Your task to perform on an android device: What's the weather going to be tomorrow? Image 0: 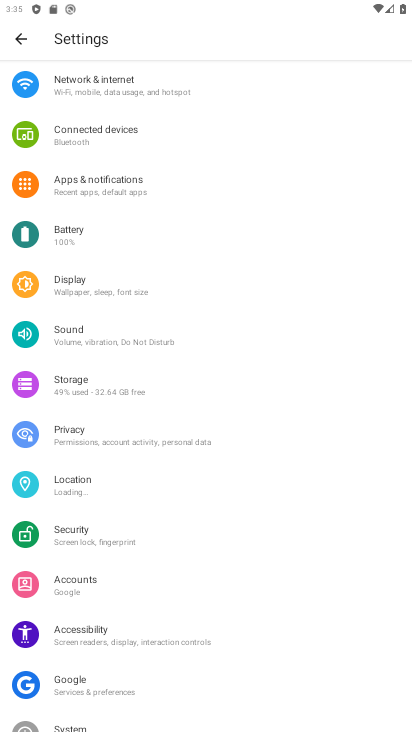
Step 0: press back button
Your task to perform on an android device: What's the weather going to be tomorrow? Image 1: 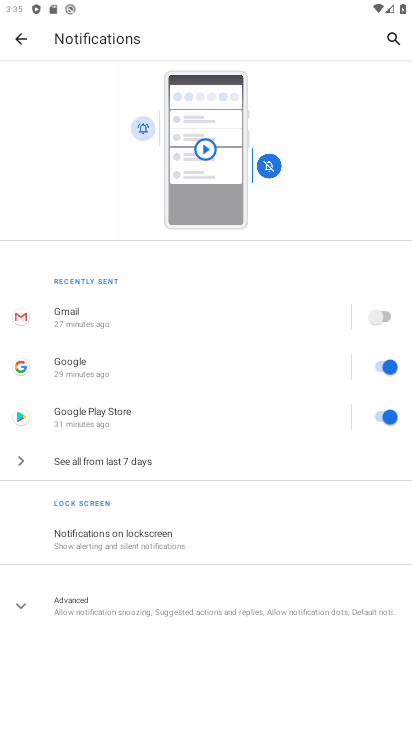
Step 1: press back button
Your task to perform on an android device: What's the weather going to be tomorrow? Image 2: 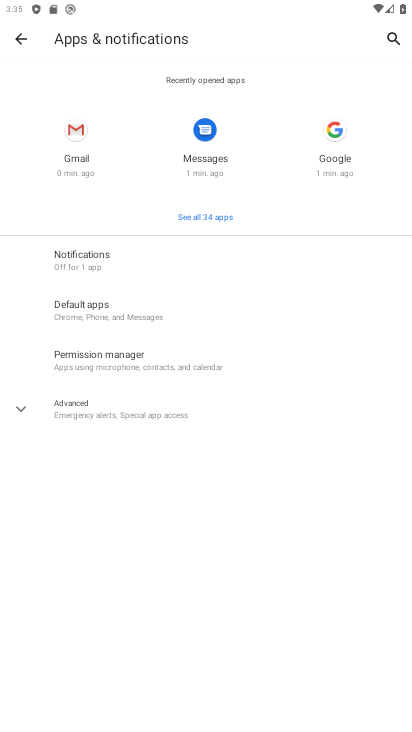
Step 2: press back button
Your task to perform on an android device: What's the weather going to be tomorrow? Image 3: 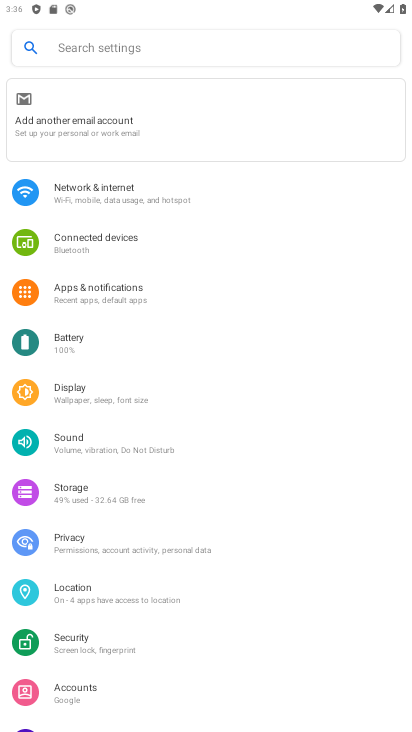
Step 3: press back button
Your task to perform on an android device: What's the weather going to be tomorrow? Image 4: 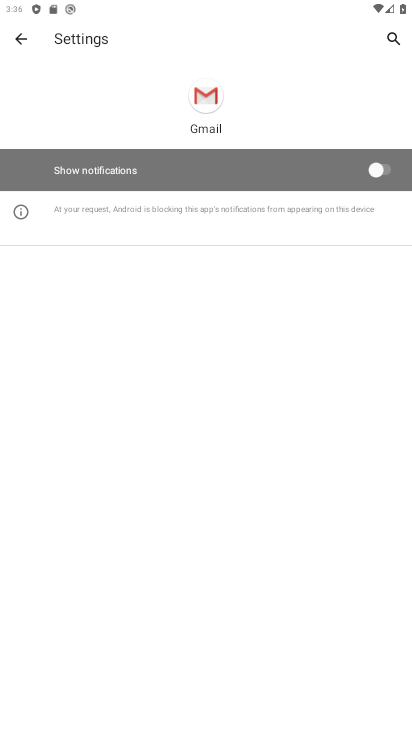
Step 4: press back button
Your task to perform on an android device: What's the weather going to be tomorrow? Image 5: 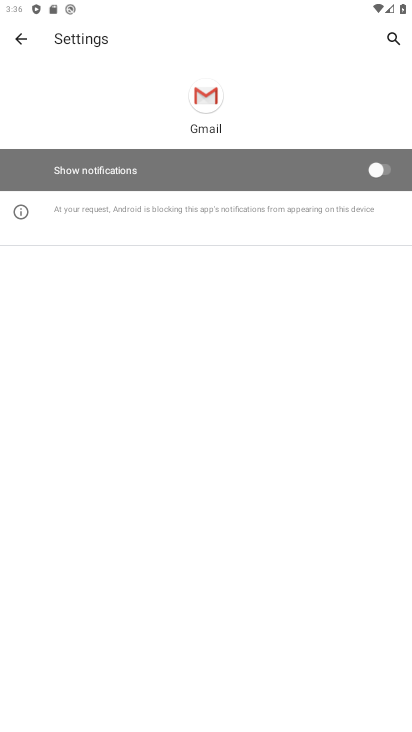
Step 5: press back button
Your task to perform on an android device: What's the weather going to be tomorrow? Image 6: 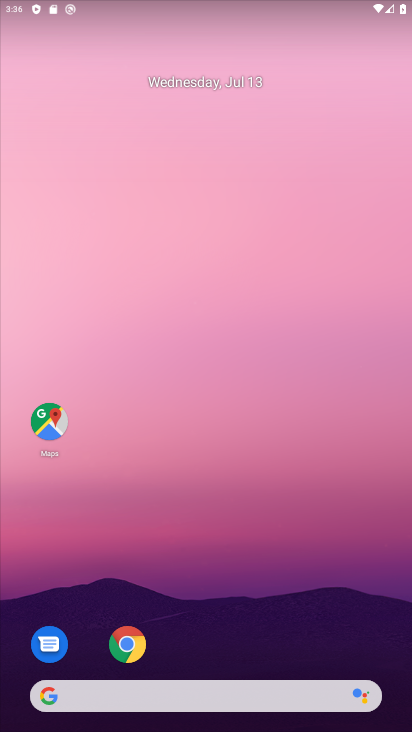
Step 6: click (174, 695)
Your task to perform on an android device: What's the weather going to be tomorrow? Image 7: 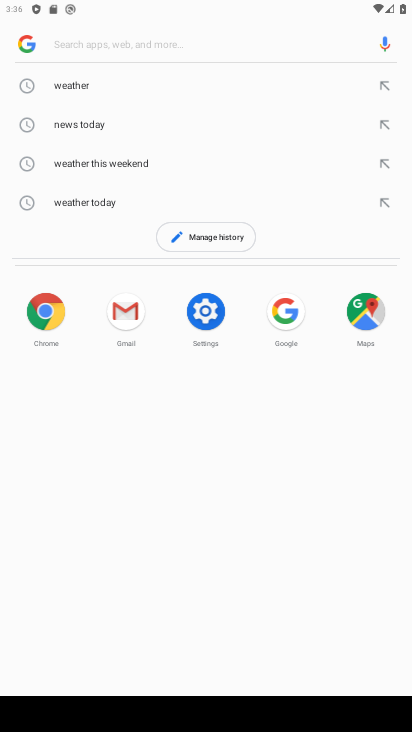
Step 7: click (92, 82)
Your task to perform on an android device: What's the weather going to be tomorrow? Image 8: 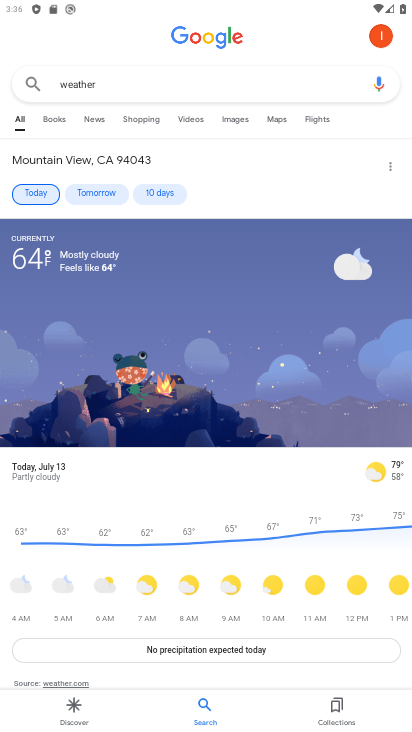
Step 8: click (91, 188)
Your task to perform on an android device: What's the weather going to be tomorrow? Image 9: 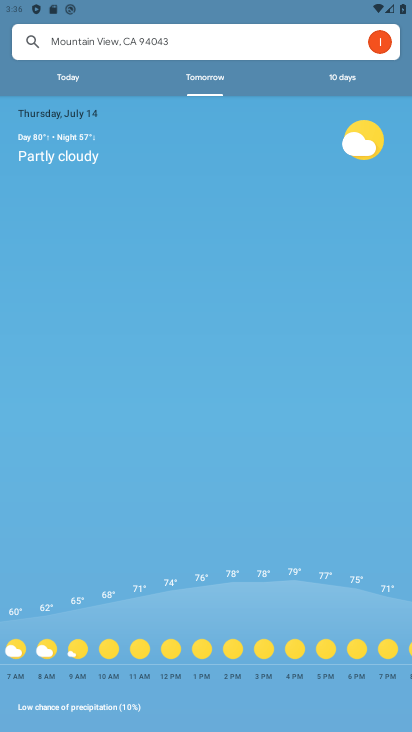
Step 9: task complete